Your task to perform on an android device: Open the Play Movies app and select the watchlist tab. Image 0: 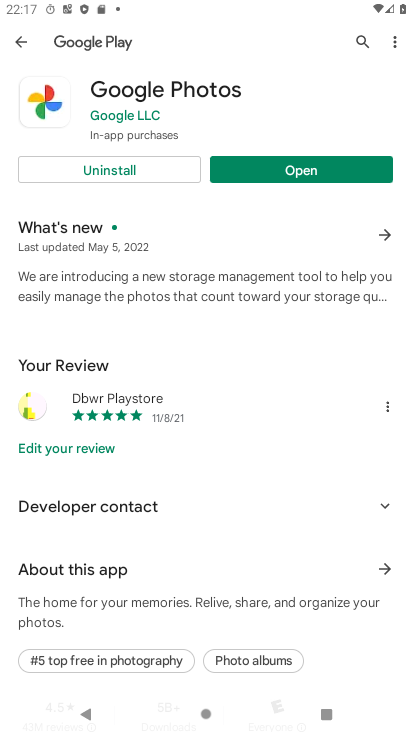
Step 0: press home button
Your task to perform on an android device: Open the Play Movies app and select the watchlist tab. Image 1: 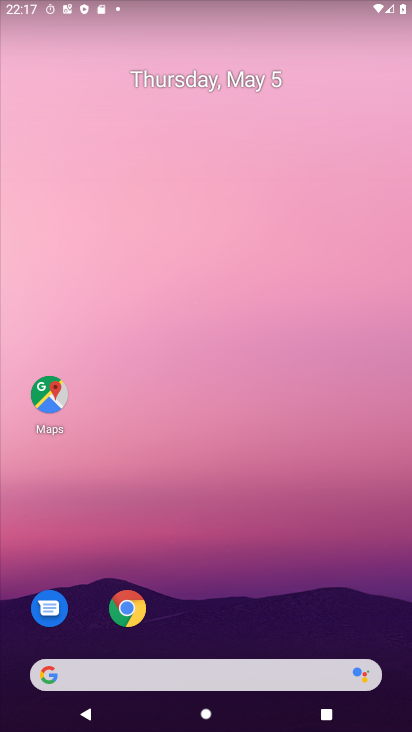
Step 1: drag from (260, 667) to (325, 85)
Your task to perform on an android device: Open the Play Movies app and select the watchlist tab. Image 2: 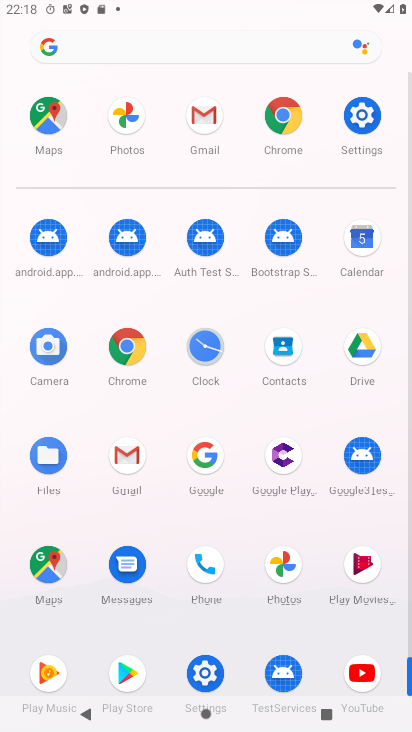
Step 2: drag from (176, 638) to (226, 83)
Your task to perform on an android device: Open the Play Movies app and select the watchlist tab. Image 3: 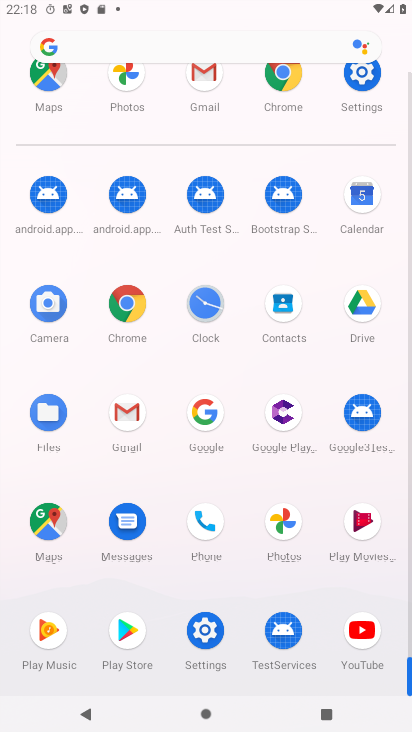
Step 3: click (356, 522)
Your task to perform on an android device: Open the Play Movies app and select the watchlist tab. Image 4: 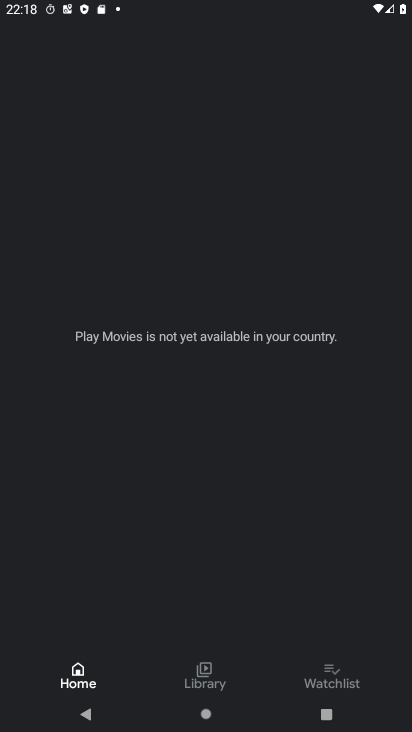
Step 4: click (343, 678)
Your task to perform on an android device: Open the Play Movies app and select the watchlist tab. Image 5: 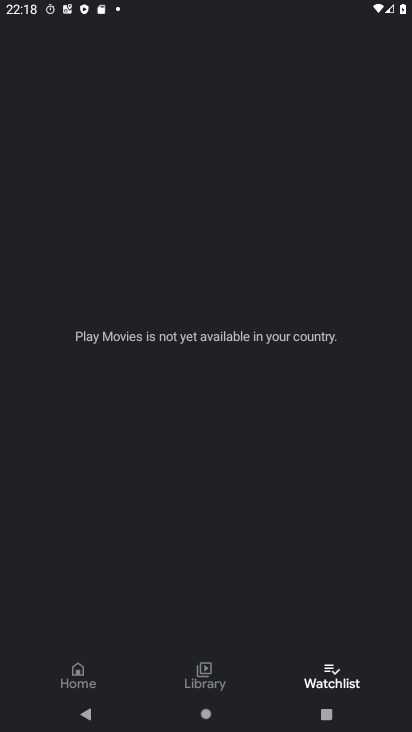
Step 5: task complete